Your task to perform on an android device: change text size in settings app Image 0: 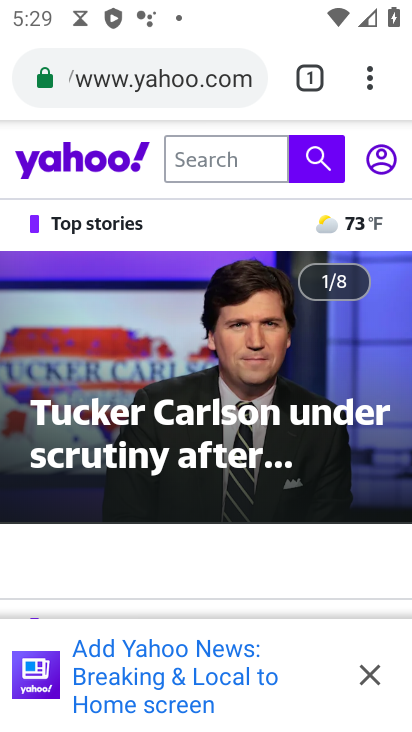
Step 0: press back button
Your task to perform on an android device: change text size in settings app Image 1: 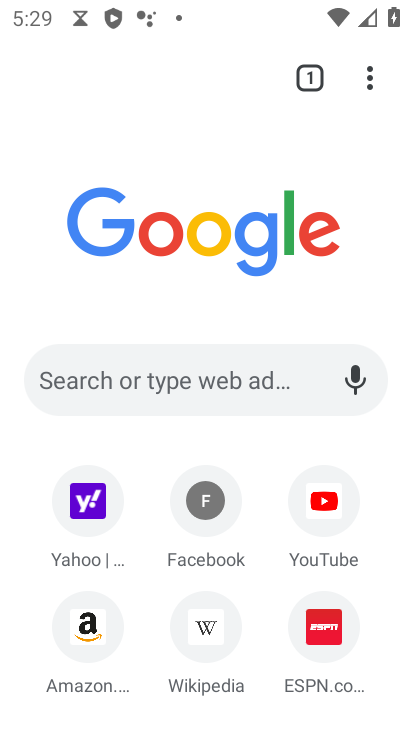
Step 1: click (372, 79)
Your task to perform on an android device: change text size in settings app Image 2: 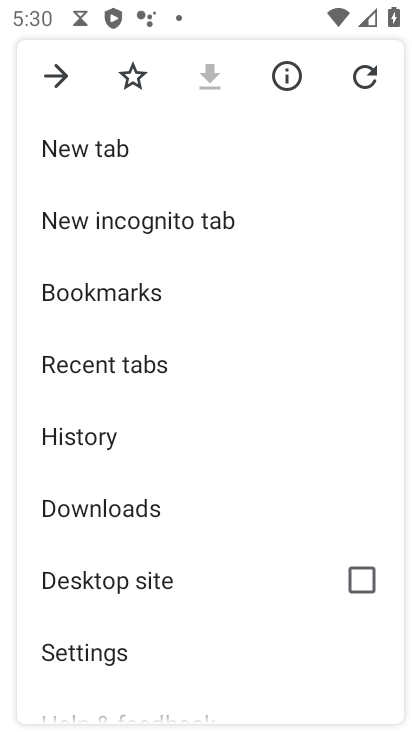
Step 2: click (44, 76)
Your task to perform on an android device: change text size in settings app Image 3: 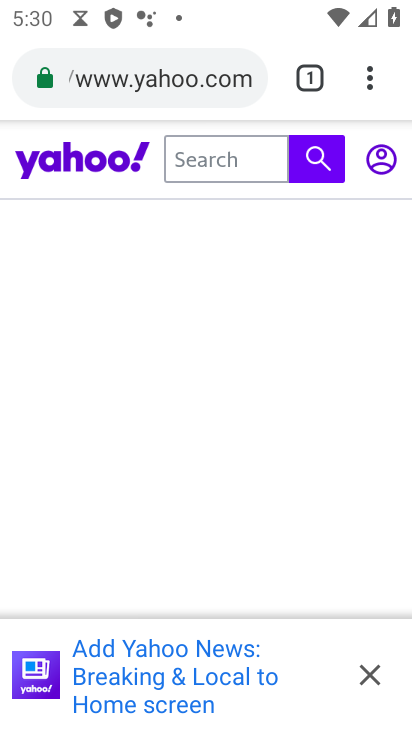
Step 3: click (368, 83)
Your task to perform on an android device: change text size in settings app Image 4: 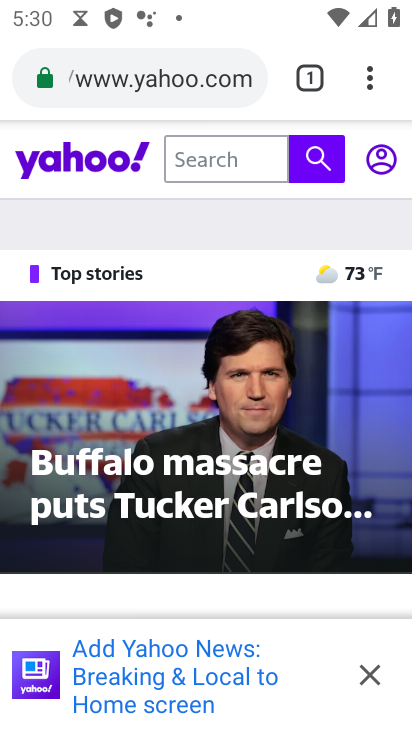
Step 4: click (368, 83)
Your task to perform on an android device: change text size in settings app Image 5: 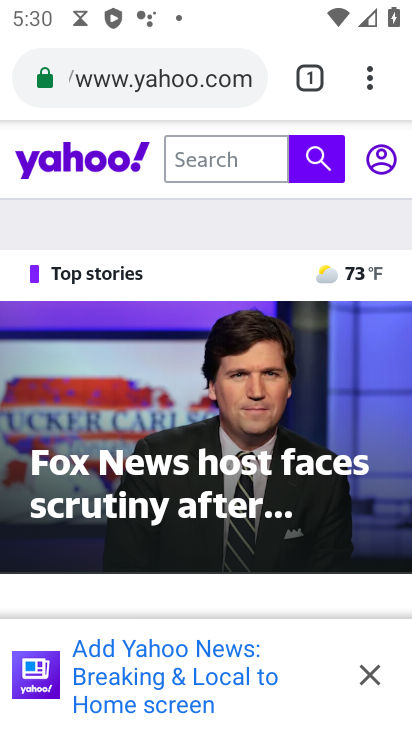
Step 5: click (368, 83)
Your task to perform on an android device: change text size in settings app Image 6: 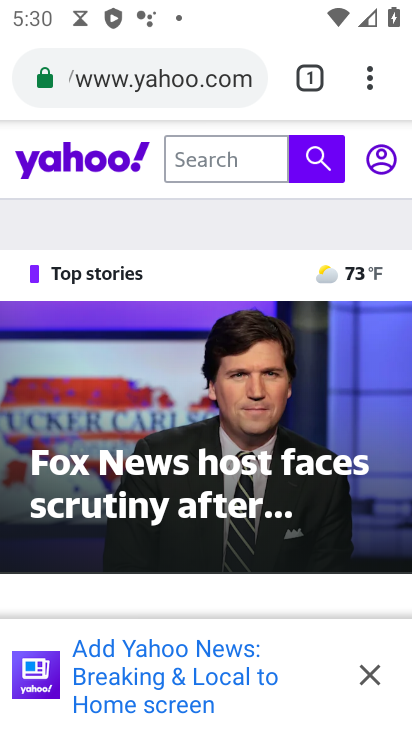
Step 6: click (369, 82)
Your task to perform on an android device: change text size in settings app Image 7: 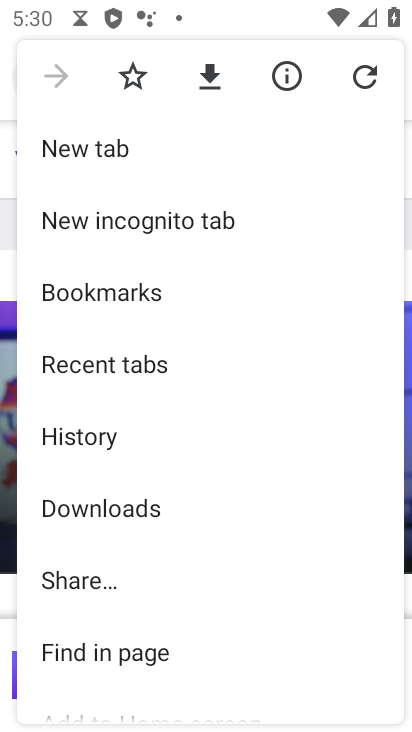
Step 7: press back button
Your task to perform on an android device: change text size in settings app Image 8: 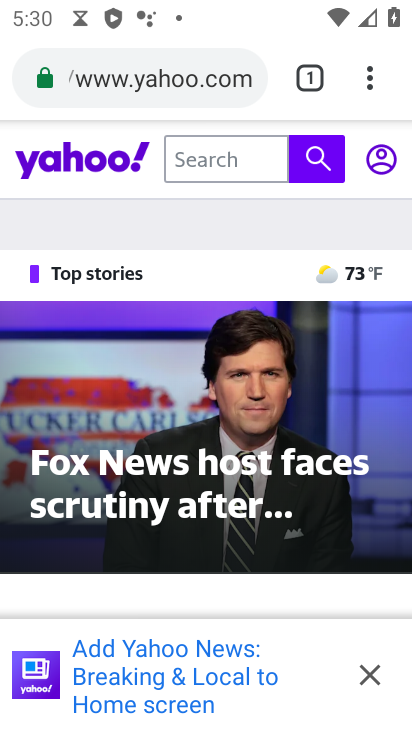
Step 8: click (360, 74)
Your task to perform on an android device: change text size in settings app Image 9: 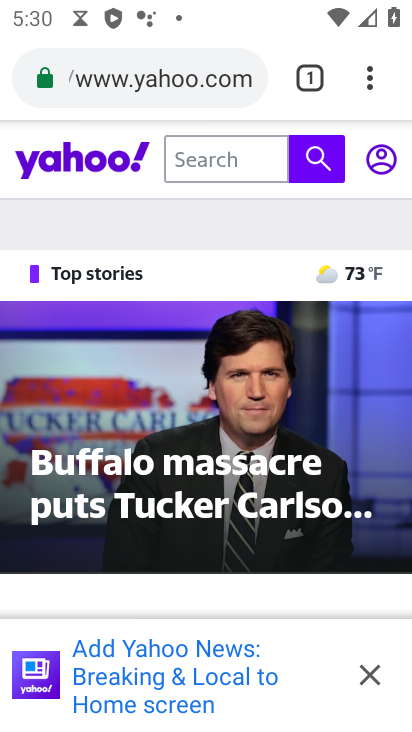
Step 9: click (368, 81)
Your task to perform on an android device: change text size in settings app Image 10: 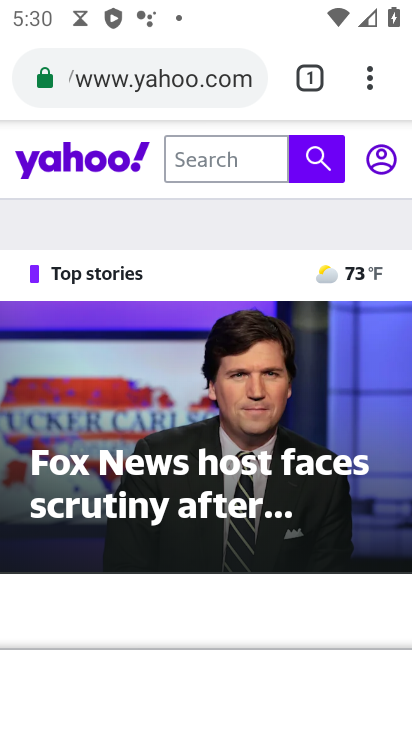
Step 10: press back button
Your task to perform on an android device: change text size in settings app Image 11: 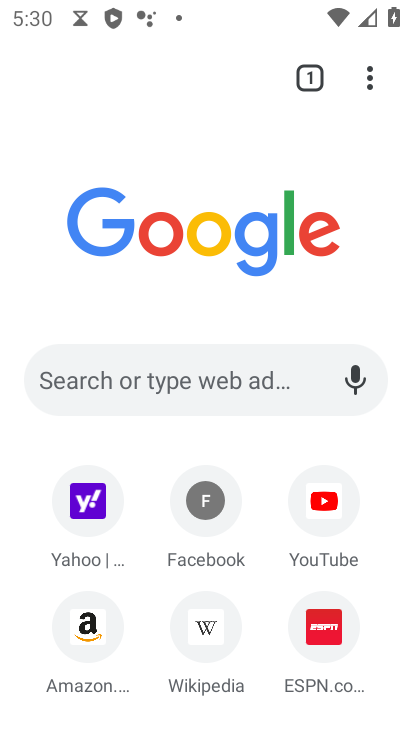
Step 11: press home button
Your task to perform on an android device: change text size in settings app Image 12: 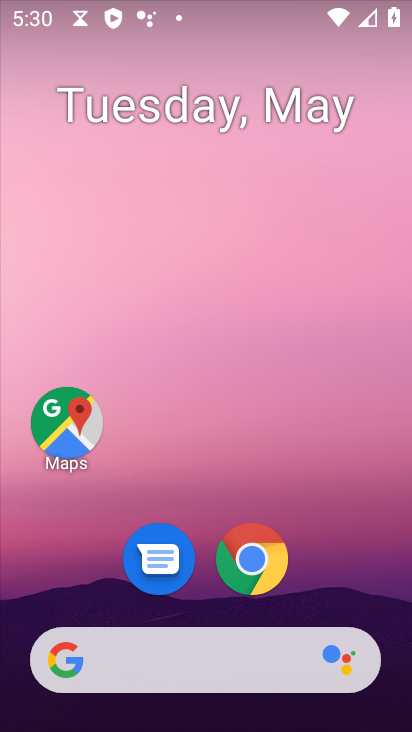
Step 12: drag from (260, 686) to (143, 124)
Your task to perform on an android device: change text size in settings app Image 13: 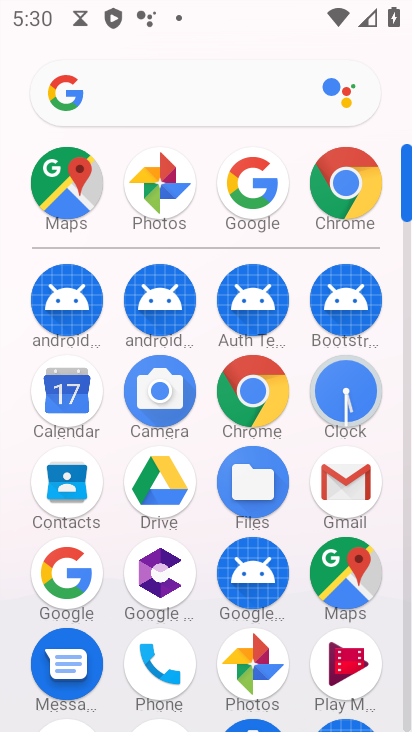
Step 13: drag from (251, 442) to (222, 150)
Your task to perform on an android device: change text size in settings app Image 14: 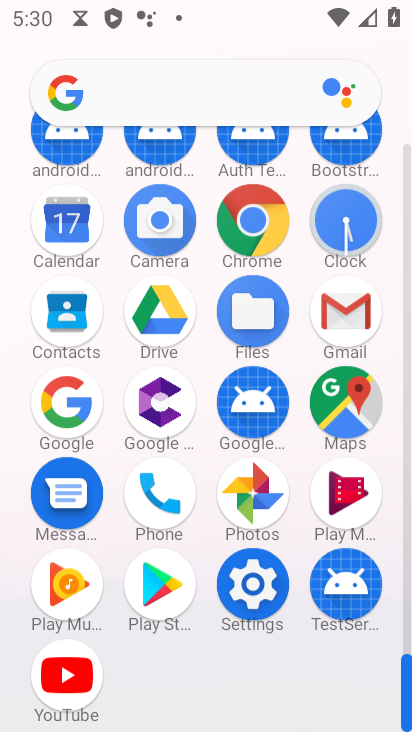
Step 14: drag from (219, 413) to (226, 175)
Your task to perform on an android device: change text size in settings app Image 15: 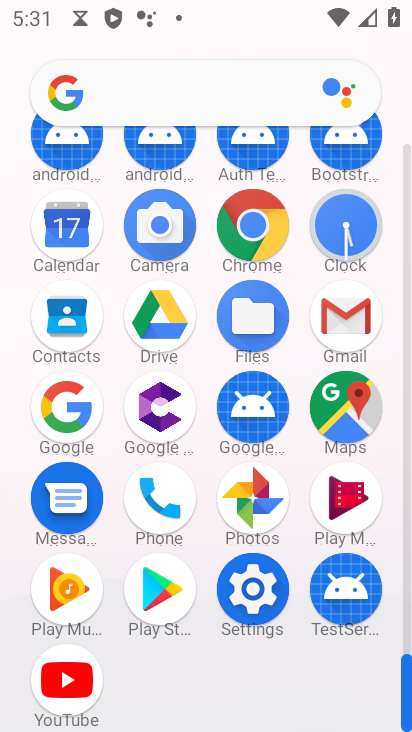
Step 15: click (259, 590)
Your task to perform on an android device: change text size in settings app Image 16: 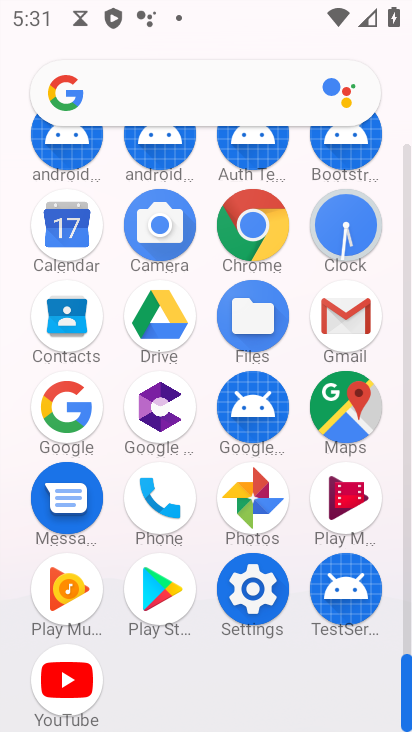
Step 16: click (259, 590)
Your task to perform on an android device: change text size in settings app Image 17: 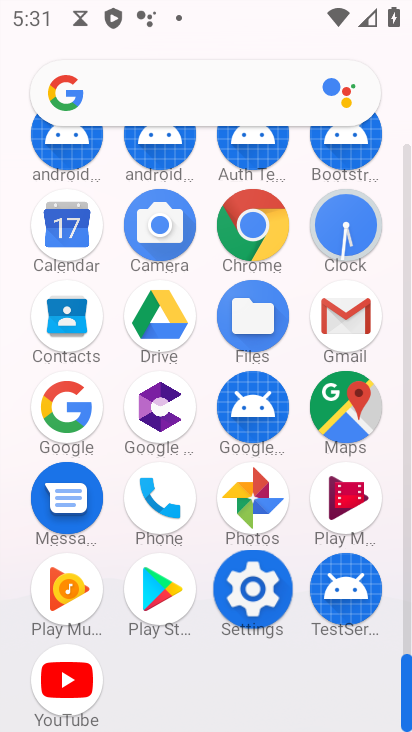
Step 17: click (259, 590)
Your task to perform on an android device: change text size in settings app Image 18: 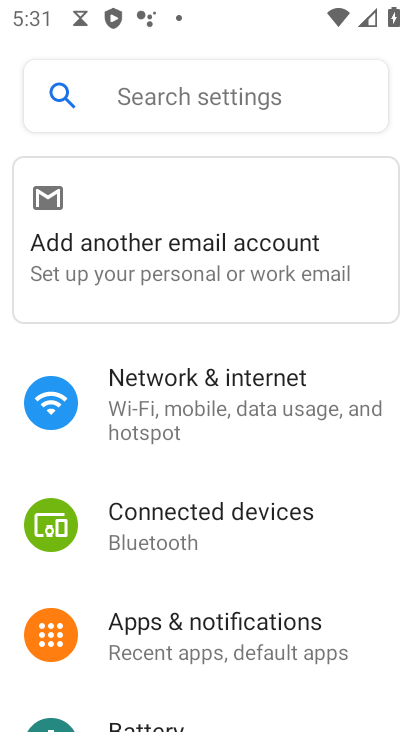
Step 18: drag from (223, 495) to (222, 262)
Your task to perform on an android device: change text size in settings app Image 19: 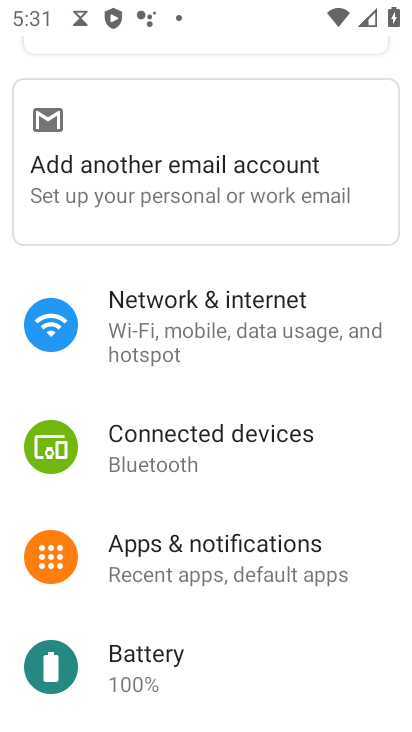
Step 19: drag from (174, 491) to (162, 245)
Your task to perform on an android device: change text size in settings app Image 20: 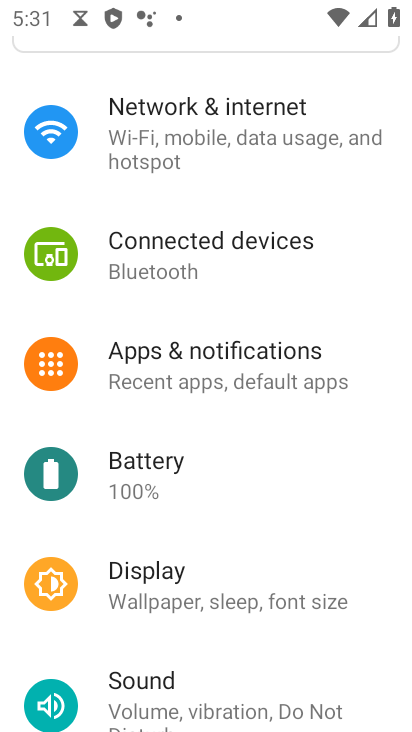
Step 20: click (170, 589)
Your task to perform on an android device: change text size in settings app Image 21: 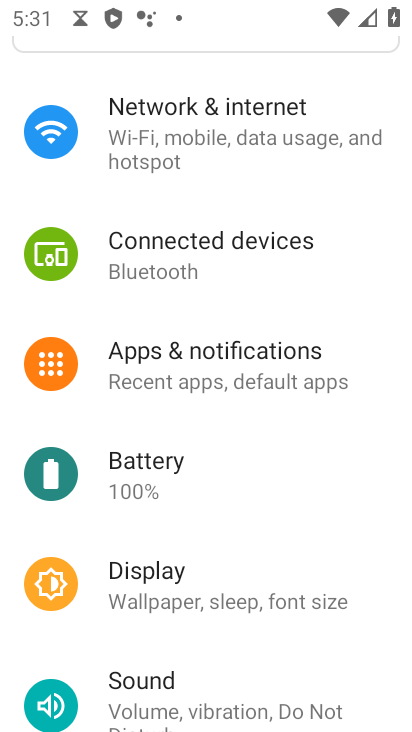
Step 21: click (170, 589)
Your task to perform on an android device: change text size in settings app Image 22: 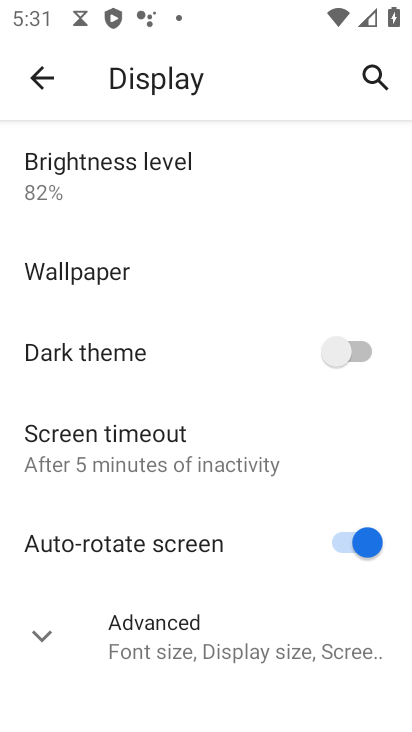
Step 22: click (178, 634)
Your task to perform on an android device: change text size in settings app Image 23: 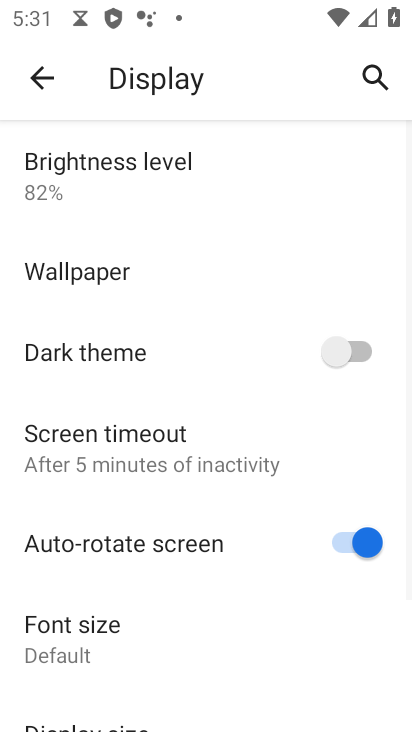
Step 23: drag from (101, 620) to (113, 320)
Your task to perform on an android device: change text size in settings app Image 24: 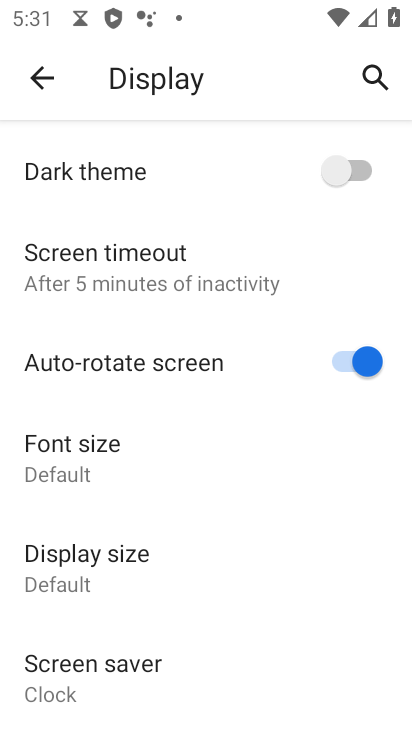
Step 24: click (64, 456)
Your task to perform on an android device: change text size in settings app Image 25: 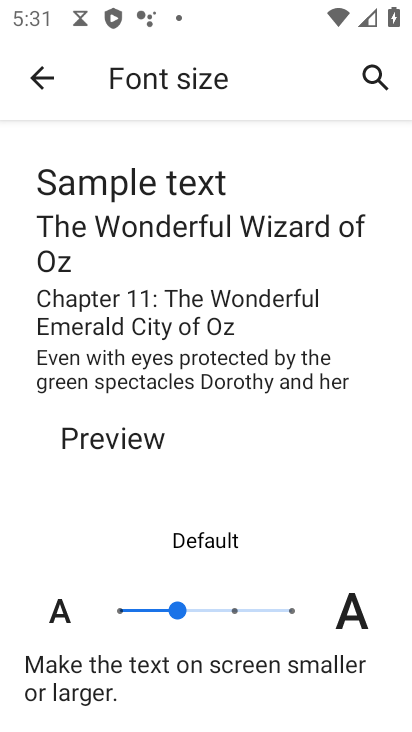
Step 25: click (246, 602)
Your task to perform on an android device: change text size in settings app Image 26: 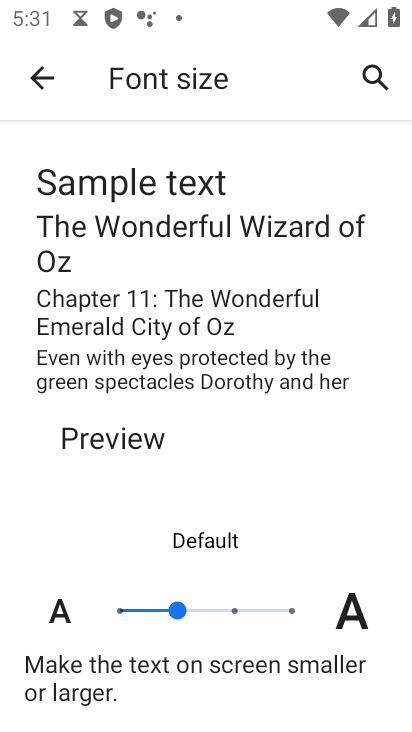
Step 26: click (231, 609)
Your task to perform on an android device: change text size in settings app Image 27: 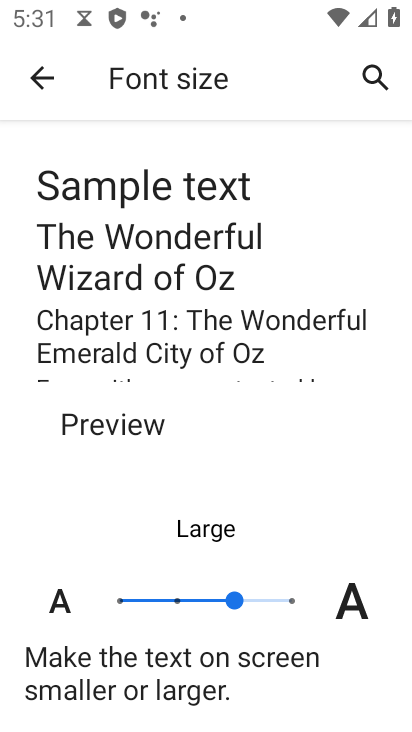
Step 27: task complete